Your task to perform on an android device: check storage Image 0: 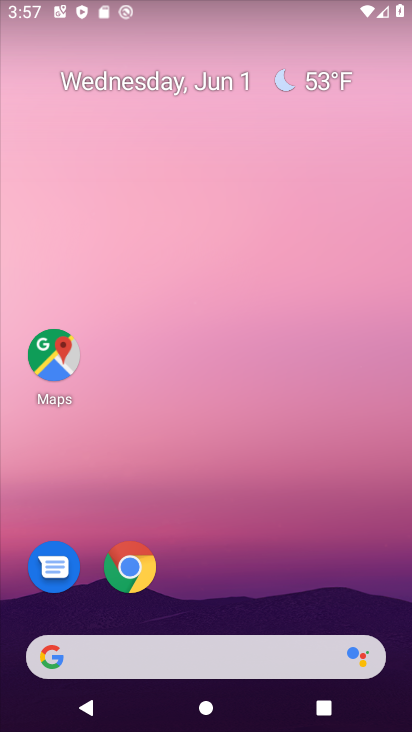
Step 0: drag from (284, 577) to (351, 87)
Your task to perform on an android device: check storage Image 1: 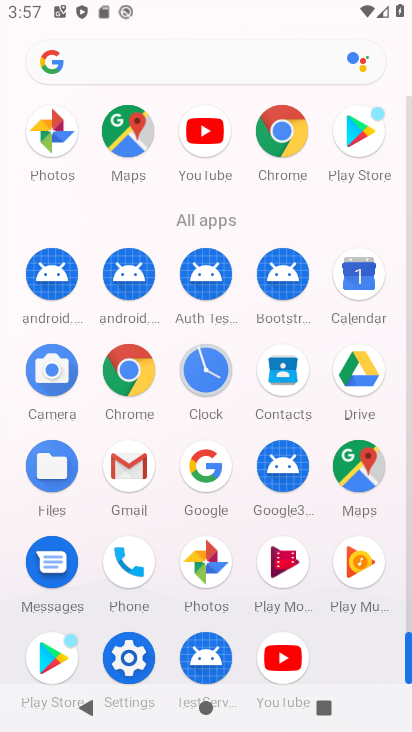
Step 1: click (137, 651)
Your task to perform on an android device: check storage Image 2: 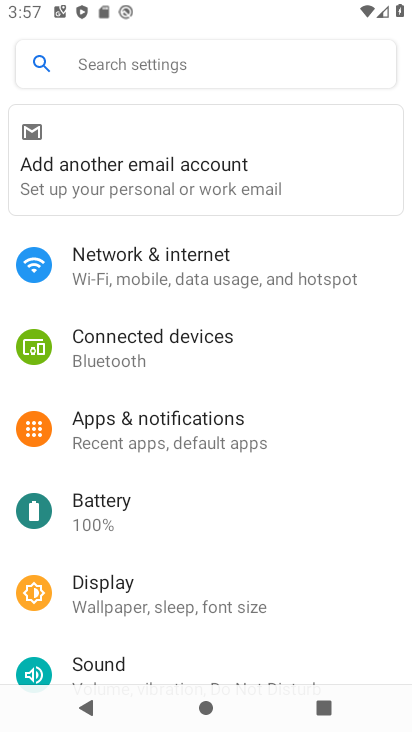
Step 2: drag from (165, 625) to (267, 318)
Your task to perform on an android device: check storage Image 3: 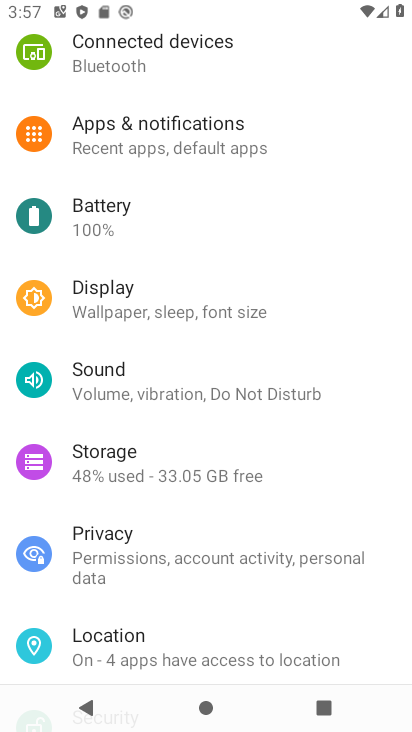
Step 3: click (163, 471)
Your task to perform on an android device: check storage Image 4: 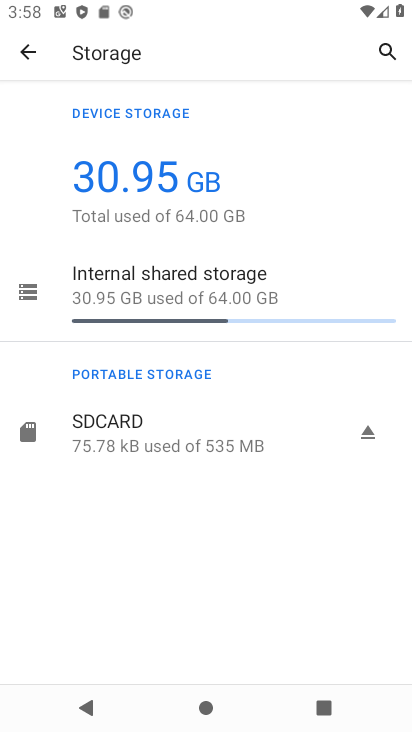
Step 4: task complete